Your task to perform on an android device: Do I have any events today? Image 0: 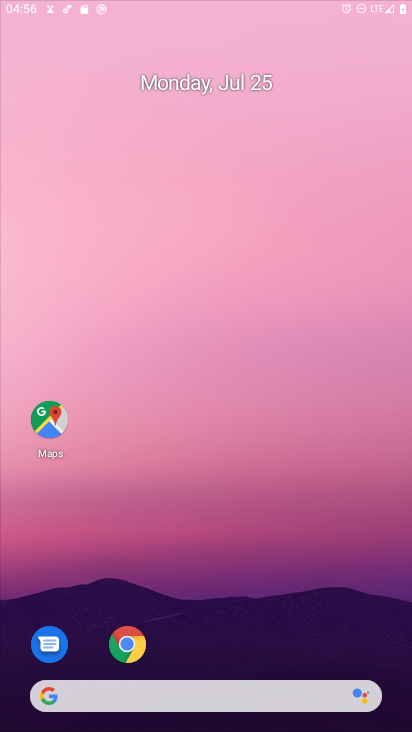
Step 0: press home button
Your task to perform on an android device: Do I have any events today? Image 1: 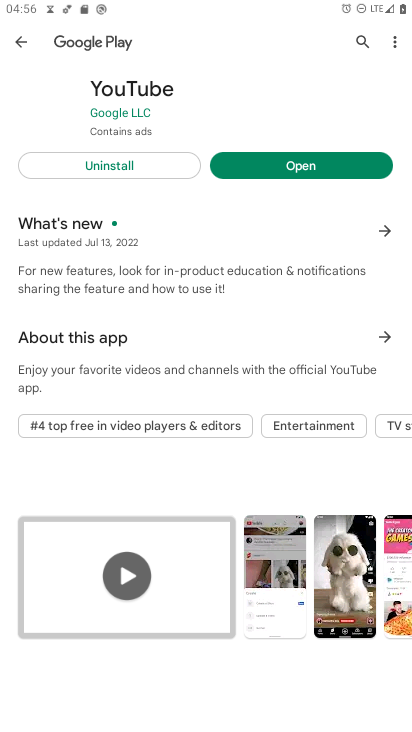
Step 1: click (168, 77)
Your task to perform on an android device: Do I have any events today? Image 2: 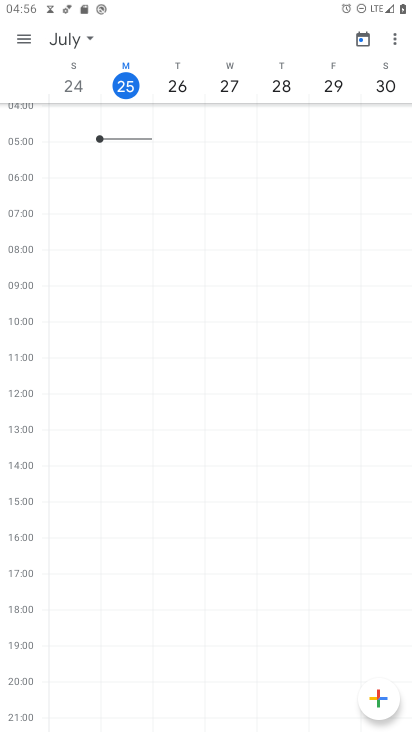
Step 2: click (134, 89)
Your task to perform on an android device: Do I have any events today? Image 3: 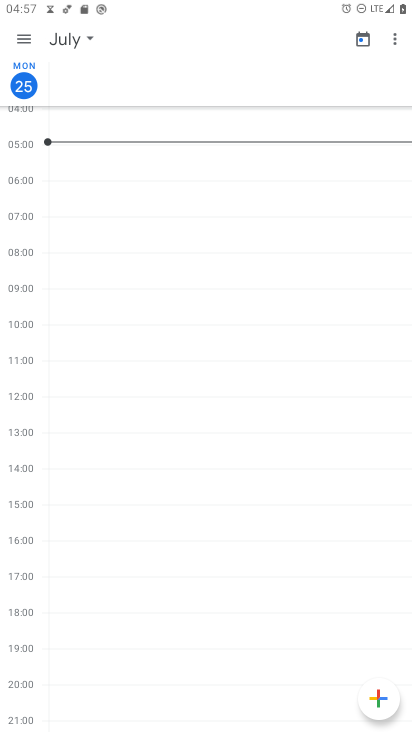
Step 3: task complete